Your task to perform on an android device: check the backup settings in the google photos Image 0: 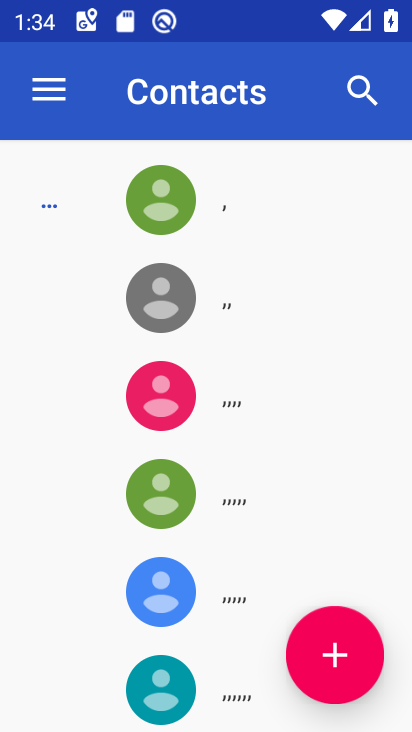
Step 0: press home button
Your task to perform on an android device: check the backup settings in the google photos Image 1: 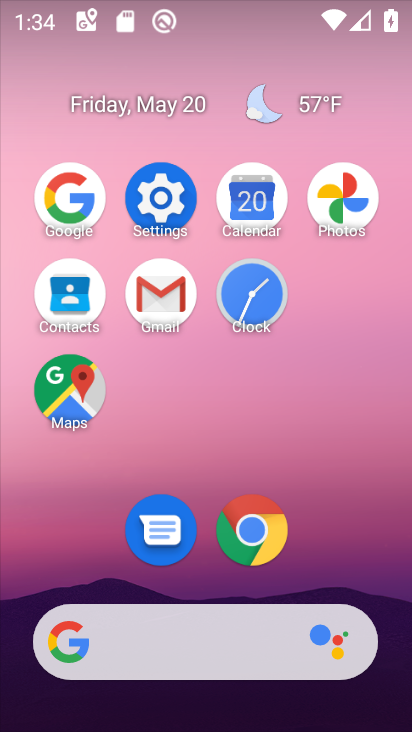
Step 1: click (379, 200)
Your task to perform on an android device: check the backup settings in the google photos Image 2: 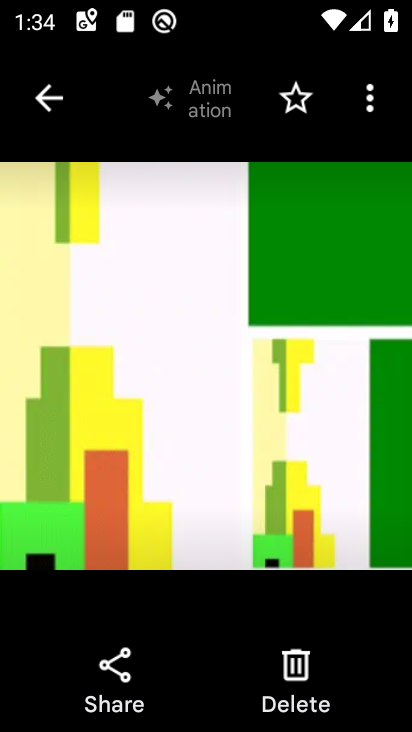
Step 2: click (61, 83)
Your task to perform on an android device: check the backup settings in the google photos Image 3: 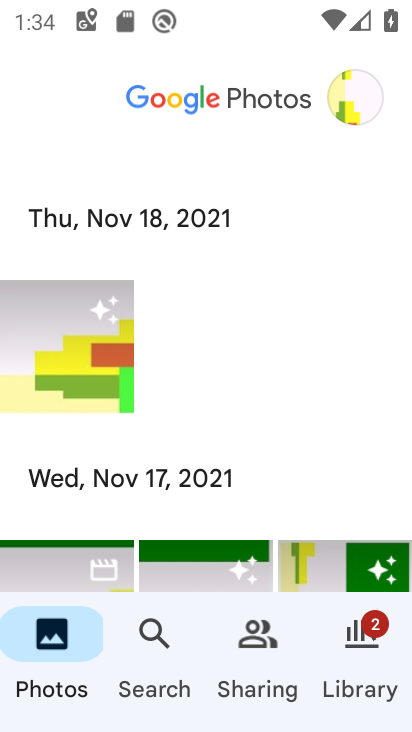
Step 3: click (363, 97)
Your task to perform on an android device: check the backup settings in the google photos Image 4: 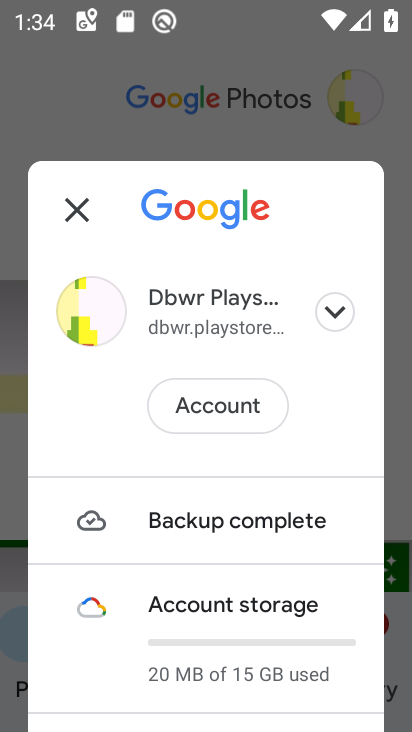
Step 4: drag from (207, 585) to (264, 31)
Your task to perform on an android device: check the backup settings in the google photos Image 5: 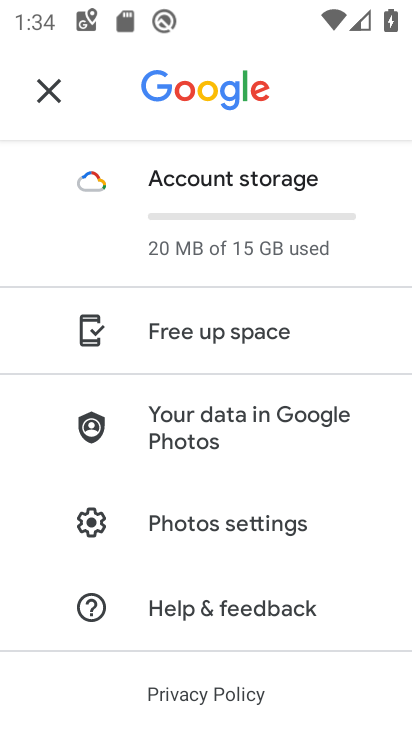
Step 5: drag from (249, 390) to (298, 99)
Your task to perform on an android device: check the backup settings in the google photos Image 6: 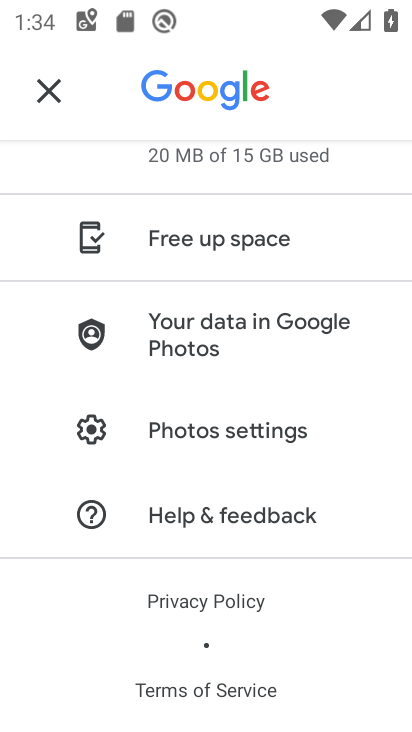
Step 6: click (233, 396)
Your task to perform on an android device: check the backup settings in the google photos Image 7: 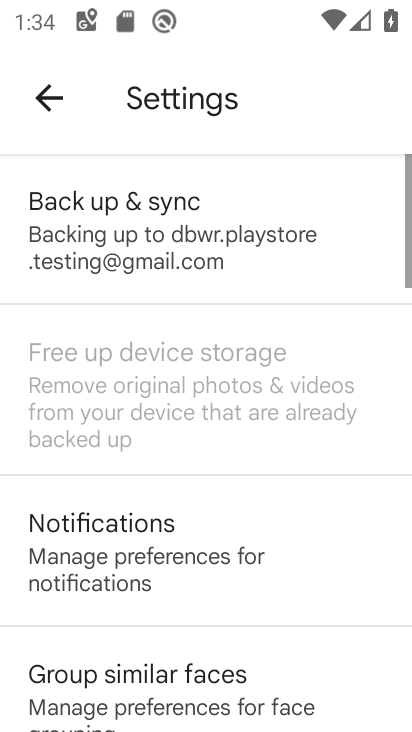
Step 7: click (220, 190)
Your task to perform on an android device: check the backup settings in the google photos Image 8: 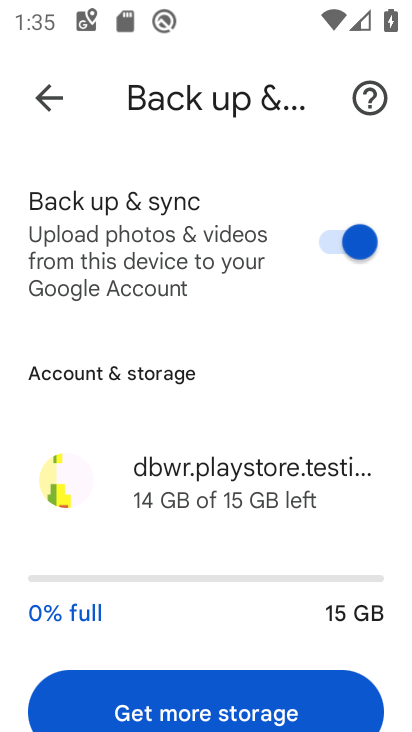
Step 8: task complete